Your task to perform on an android device: delete location history Image 0: 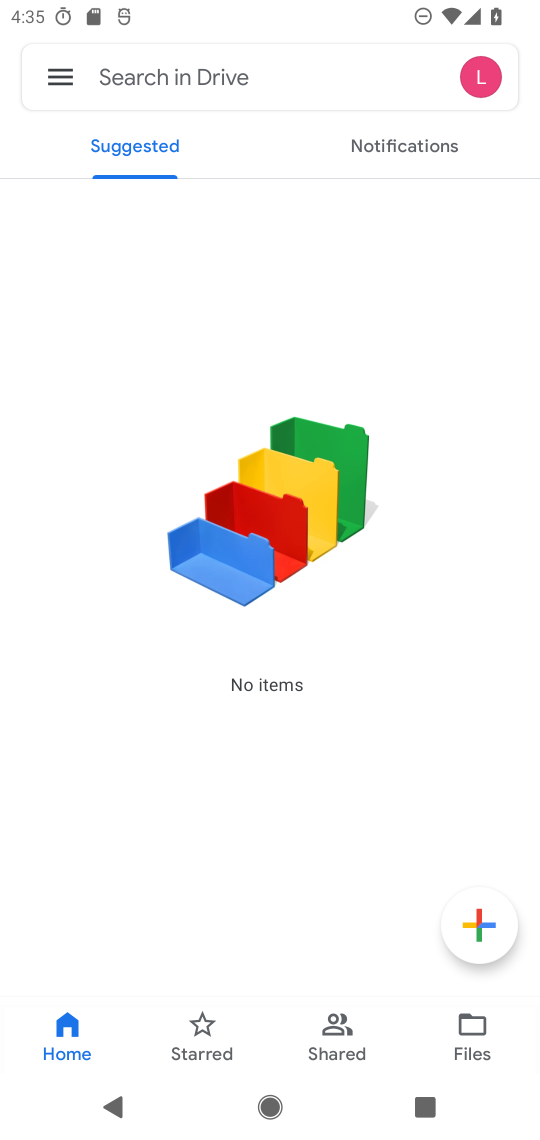
Step 0: press home button
Your task to perform on an android device: delete location history Image 1: 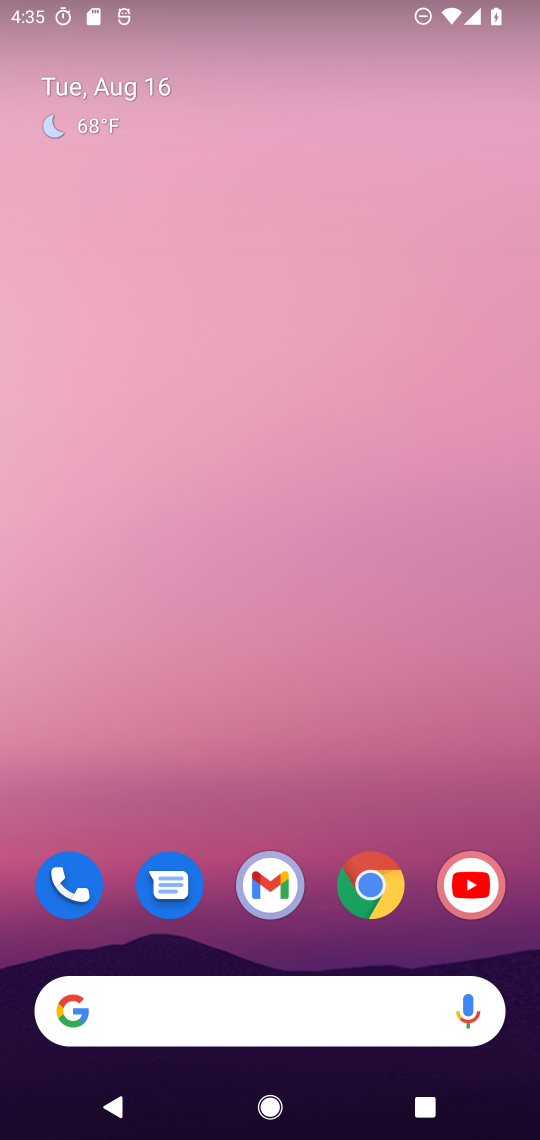
Step 1: click (254, 285)
Your task to perform on an android device: delete location history Image 2: 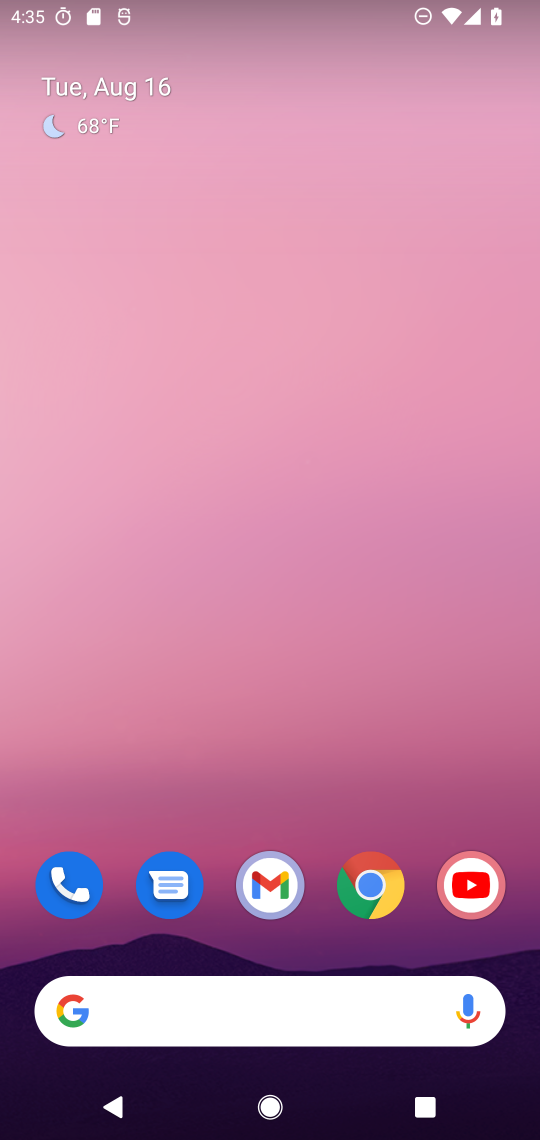
Step 2: drag from (349, 757) to (320, 369)
Your task to perform on an android device: delete location history Image 3: 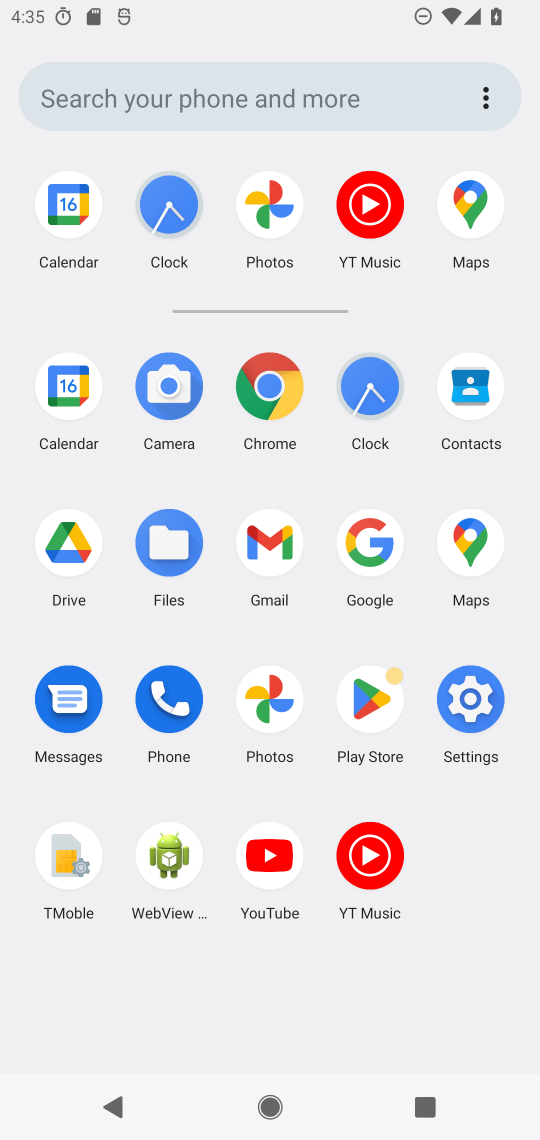
Step 3: click (472, 535)
Your task to perform on an android device: delete location history Image 4: 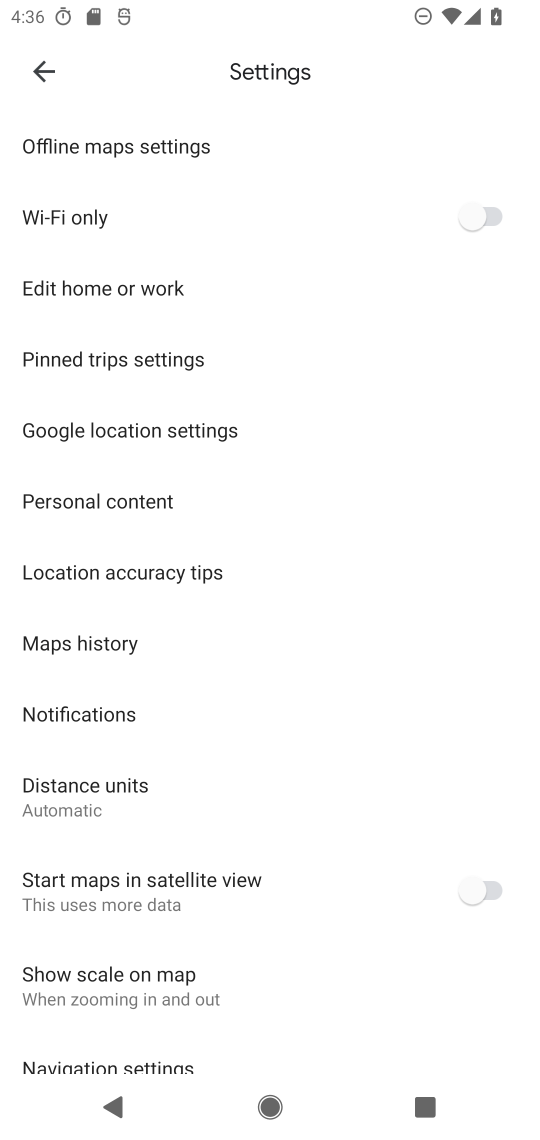
Step 4: click (192, 570)
Your task to perform on an android device: delete location history Image 5: 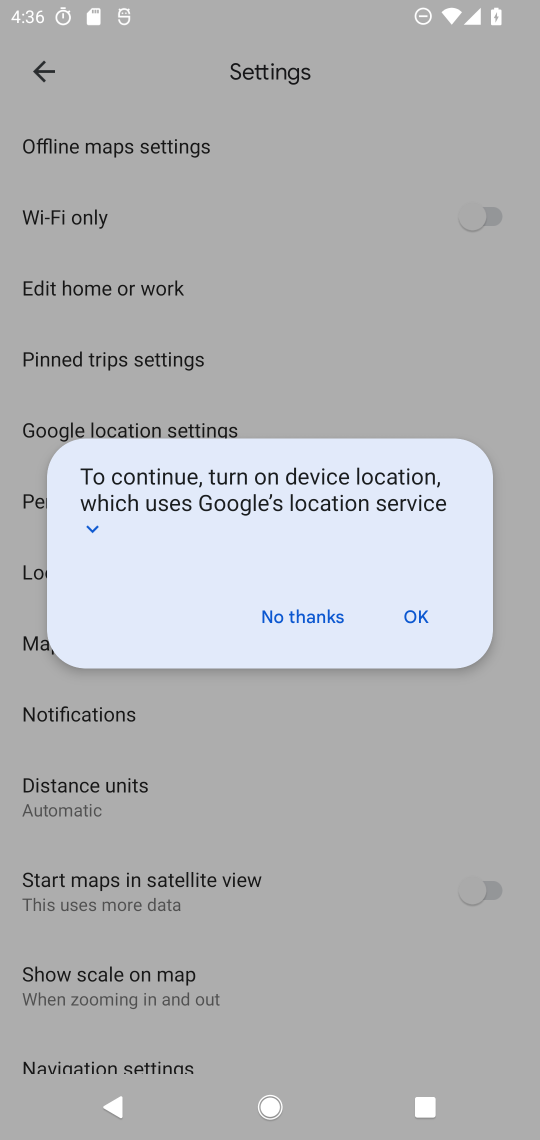
Step 5: click (314, 610)
Your task to perform on an android device: delete location history Image 6: 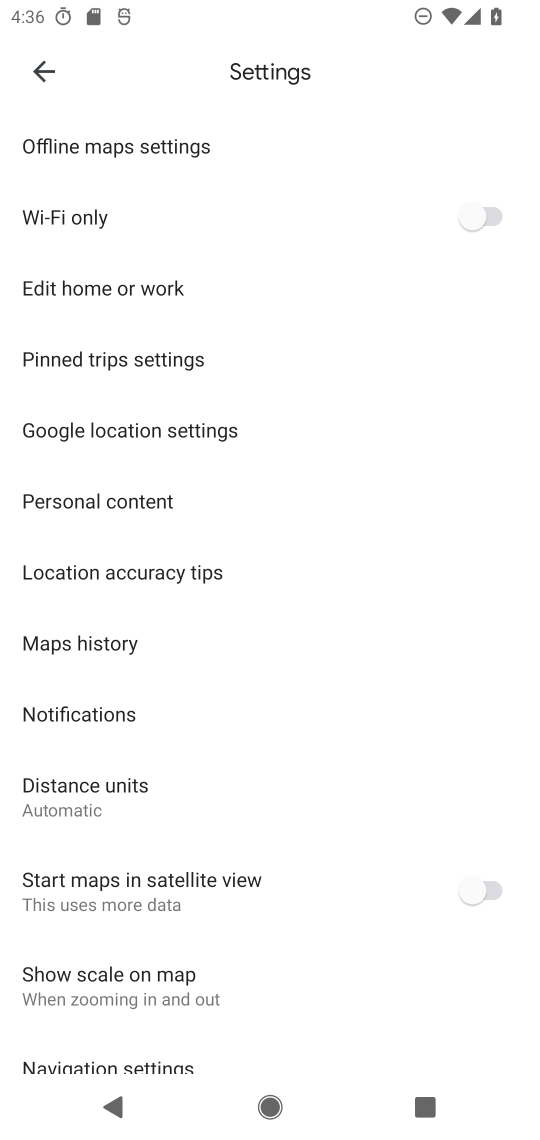
Step 6: click (46, 69)
Your task to perform on an android device: delete location history Image 7: 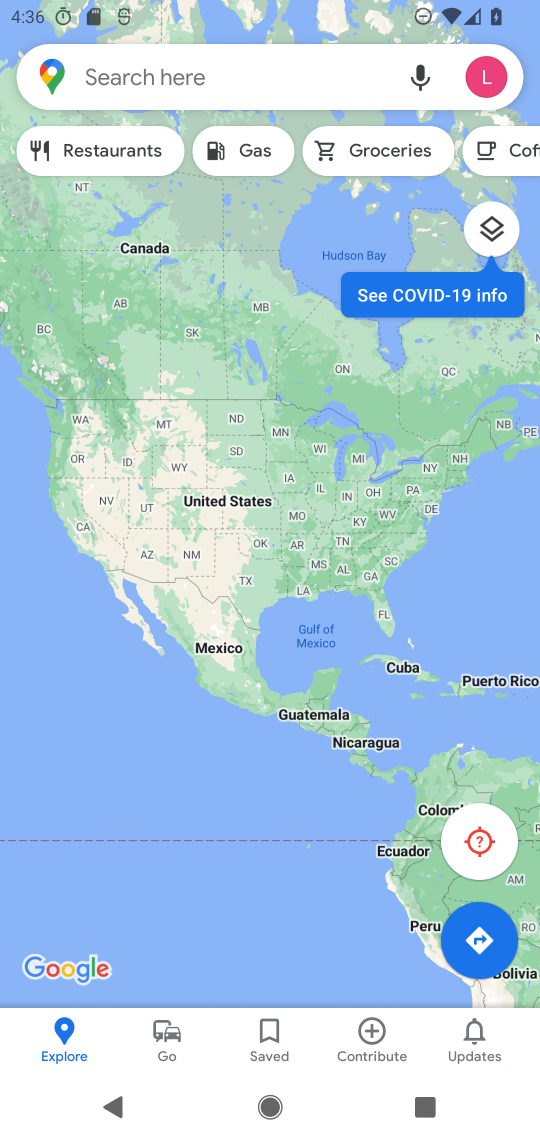
Step 7: click (473, 926)
Your task to perform on an android device: delete location history Image 8: 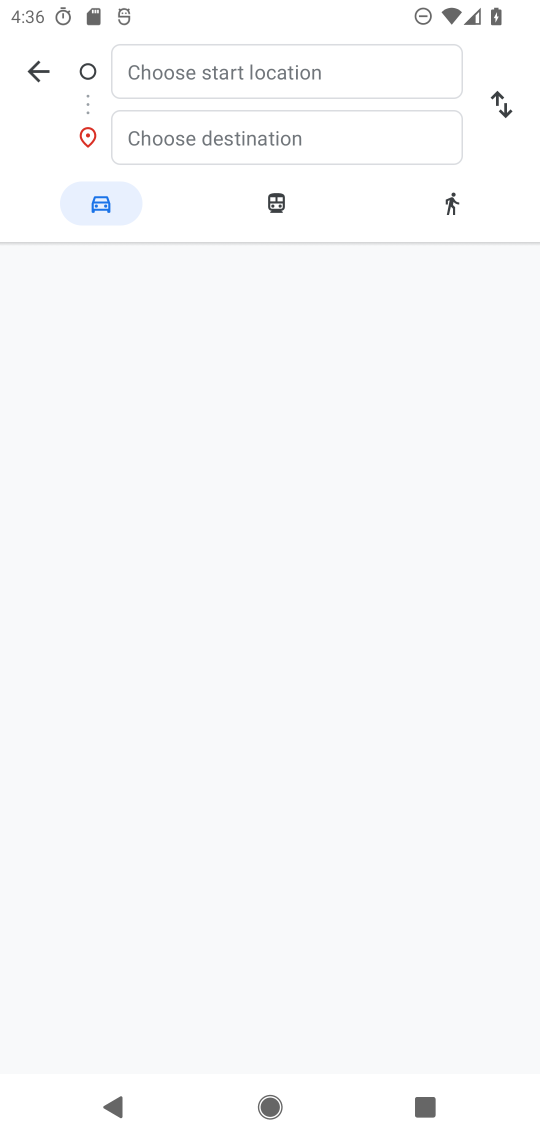
Step 8: click (18, 70)
Your task to perform on an android device: delete location history Image 9: 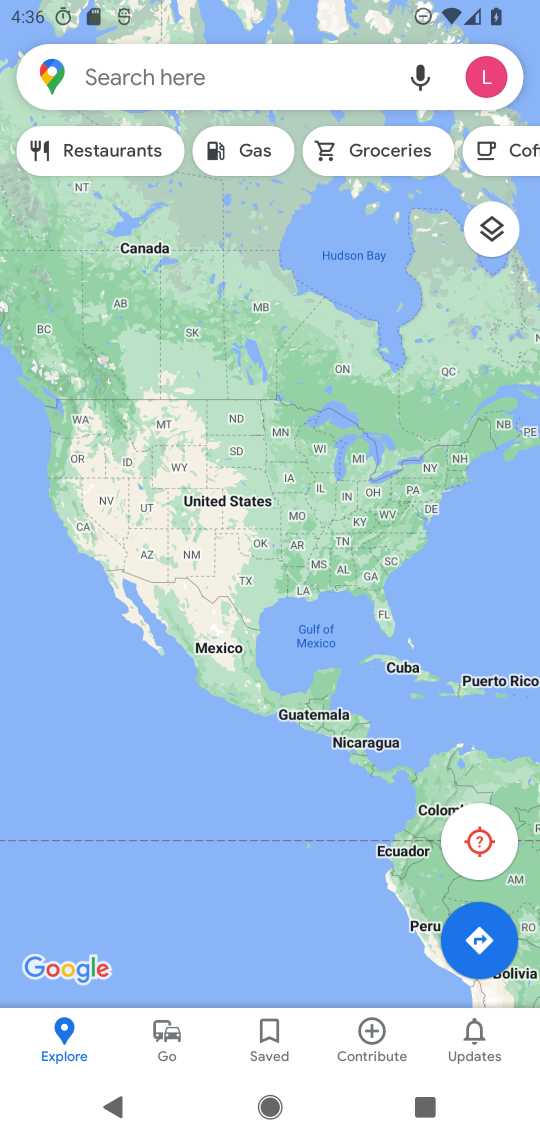
Step 9: drag from (518, 156) to (76, 117)
Your task to perform on an android device: delete location history Image 10: 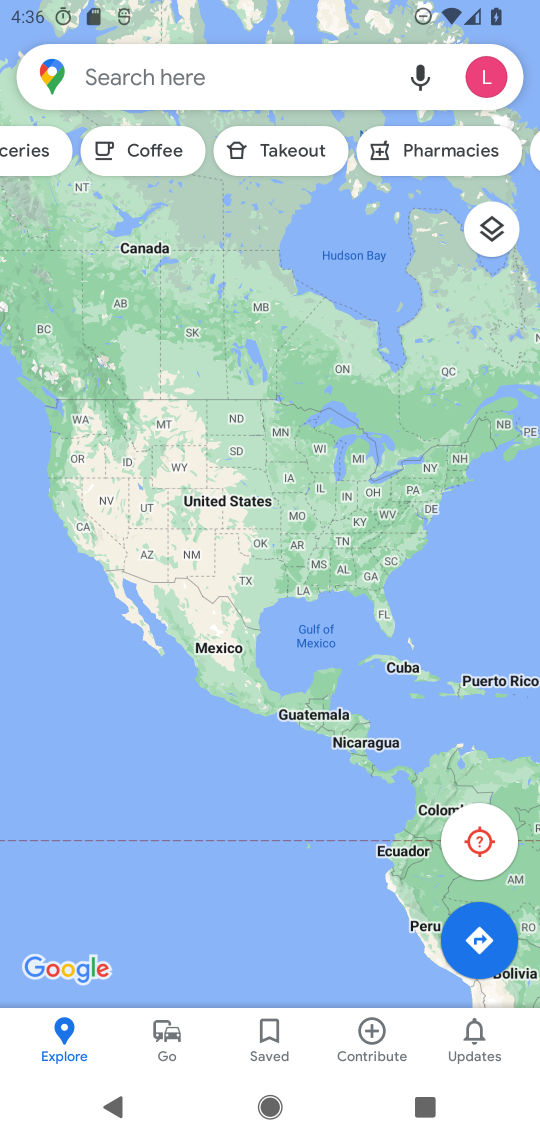
Step 10: click (489, 221)
Your task to perform on an android device: delete location history Image 11: 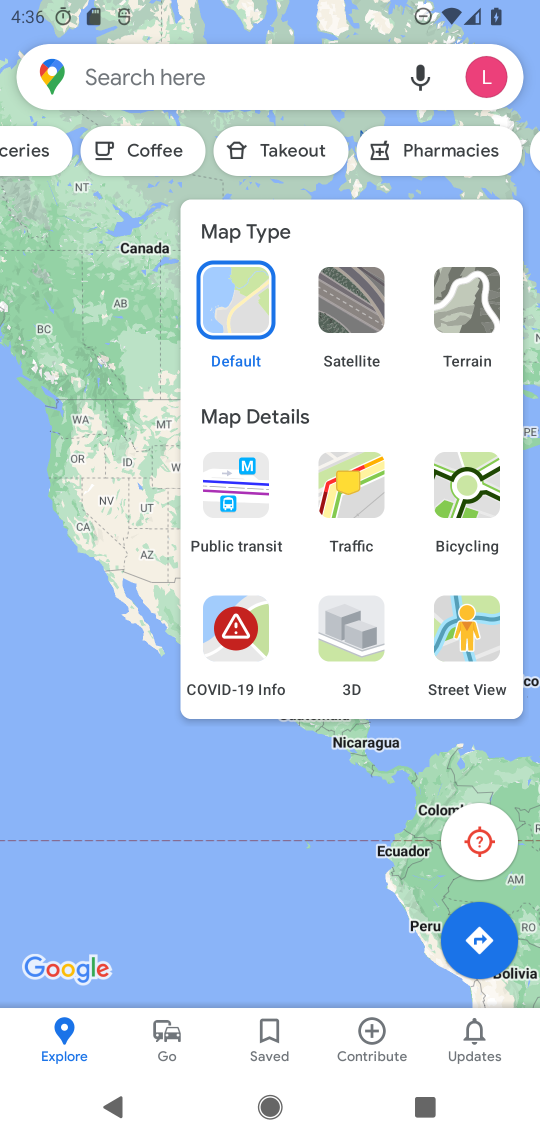
Step 11: click (138, 448)
Your task to perform on an android device: delete location history Image 12: 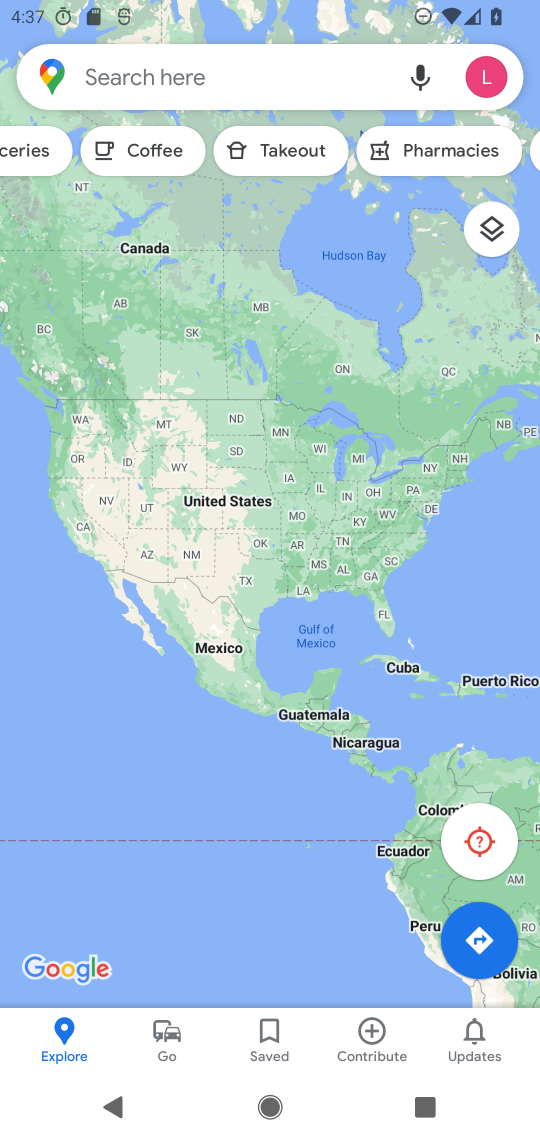
Step 12: task complete